Your task to perform on an android device: open app "LinkedIn" (install if not already installed) Image 0: 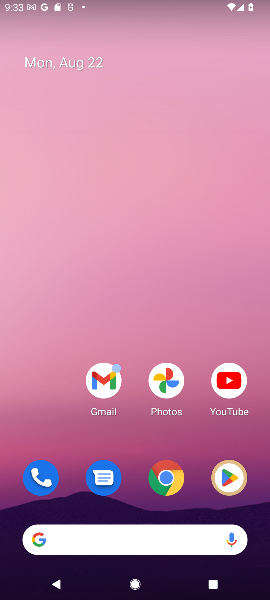
Step 0: press home button
Your task to perform on an android device: open app "LinkedIn" (install if not already installed) Image 1: 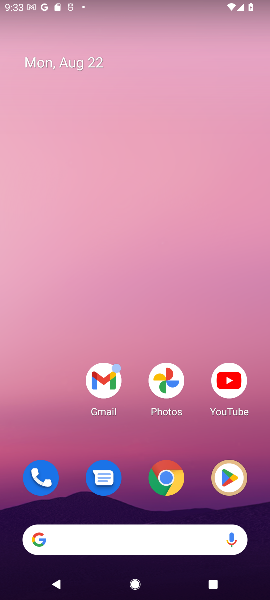
Step 1: click (226, 480)
Your task to perform on an android device: open app "LinkedIn" (install if not already installed) Image 2: 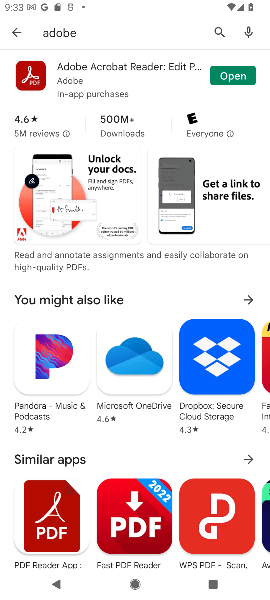
Step 2: click (202, 26)
Your task to perform on an android device: open app "LinkedIn" (install if not already installed) Image 3: 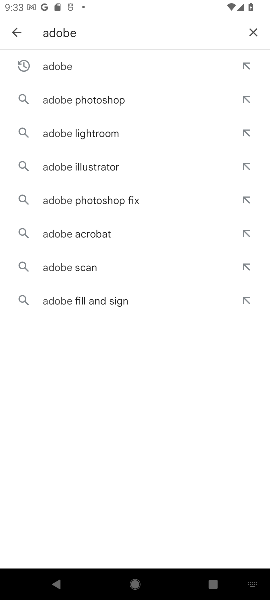
Step 3: click (260, 34)
Your task to perform on an android device: open app "LinkedIn" (install if not already installed) Image 4: 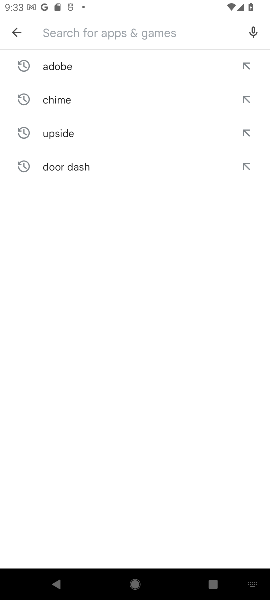
Step 4: type "linkedin"
Your task to perform on an android device: open app "LinkedIn" (install if not already installed) Image 5: 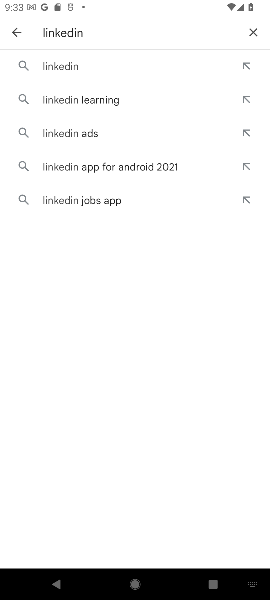
Step 5: click (113, 74)
Your task to perform on an android device: open app "LinkedIn" (install if not already installed) Image 6: 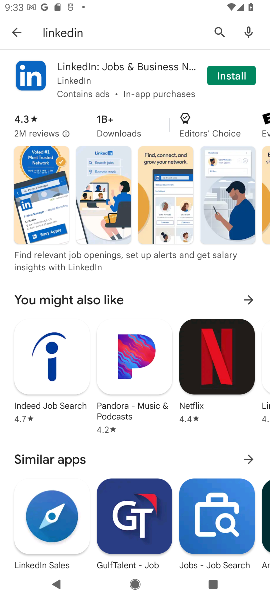
Step 6: click (229, 71)
Your task to perform on an android device: open app "LinkedIn" (install if not already installed) Image 7: 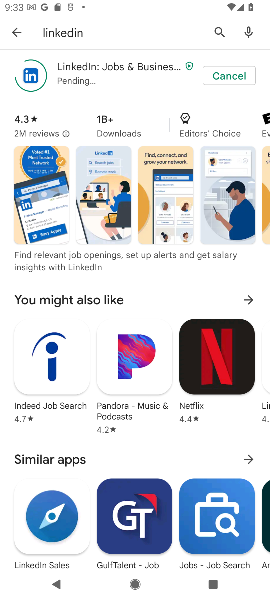
Step 7: task complete